Your task to perform on an android device: Open Maps and search for coffee Image 0: 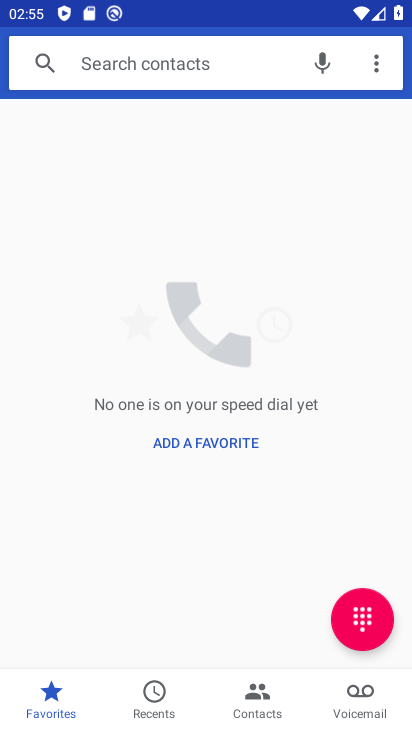
Step 0: press home button
Your task to perform on an android device: Open Maps and search for coffee Image 1: 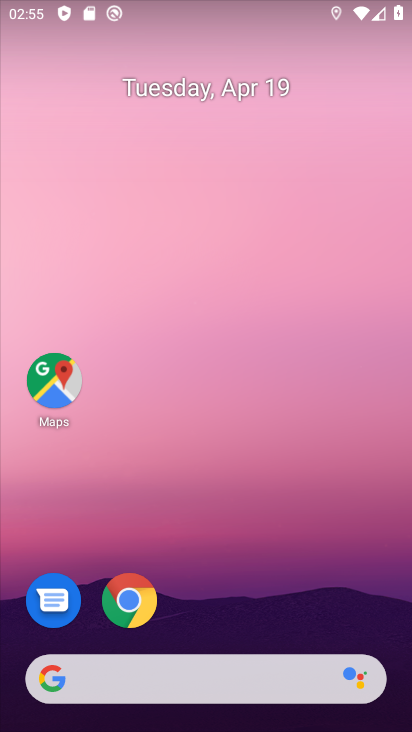
Step 1: click (47, 378)
Your task to perform on an android device: Open Maps and search for coffee Image 2: 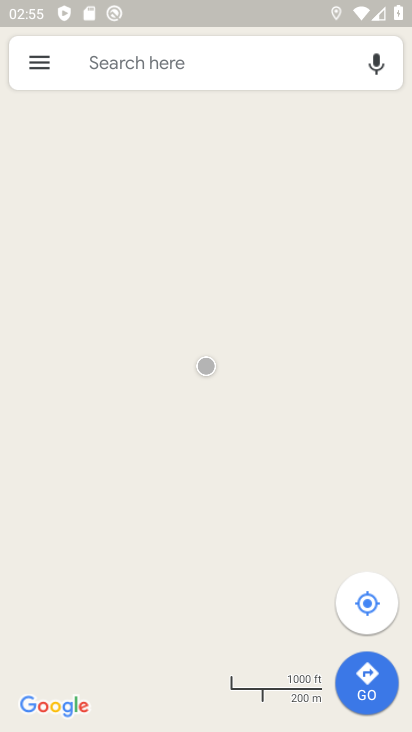
Step 2: click (245, 56)
Your task to perform on an android device: Open Maps and search for coffee Image 3: 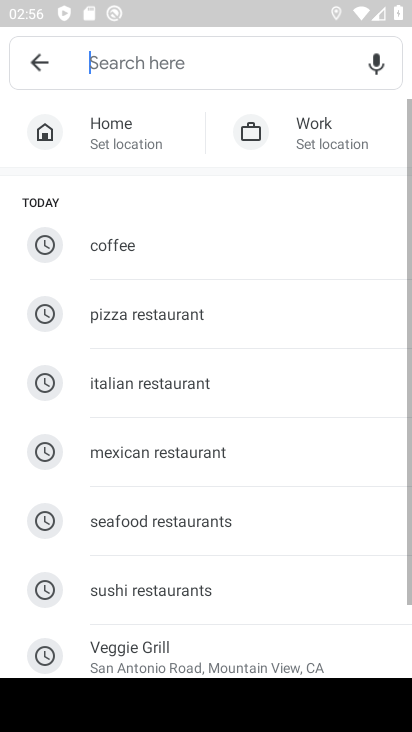
Step 3: type "coffee"
Your task to perform on an android device: Open Maps and search for coffee Image 4: 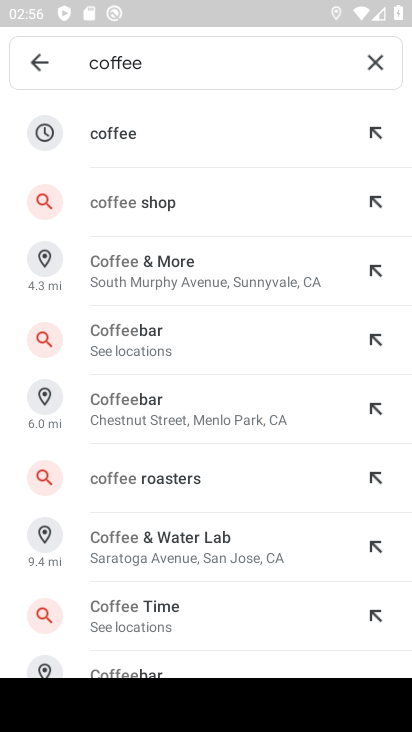
Step 4: click (142, 135)
Your task to perform on an android device: Open Maps and search for coffee Image 5: 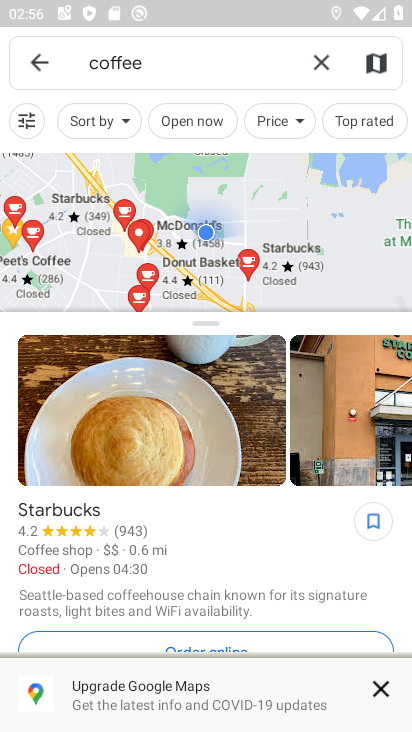
Step 5: task complete